Your task to perform on an android device: Go to Maps Image 0: 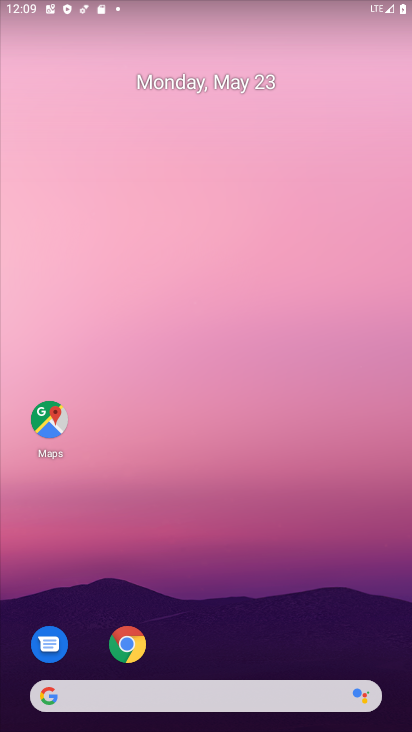
Step 0: drag from (361, 630) to (297, 112)
Your task to perform on an android device: Go to Maps Image 1: 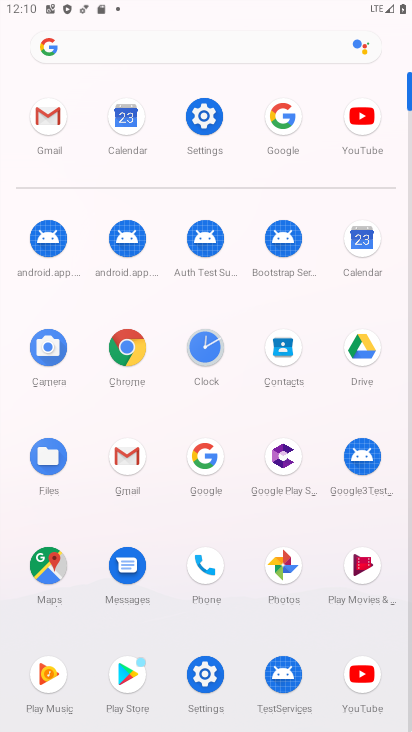
Step 1: click (54, 565)
Your task to perform on an android device: Go to Maps Image 2: 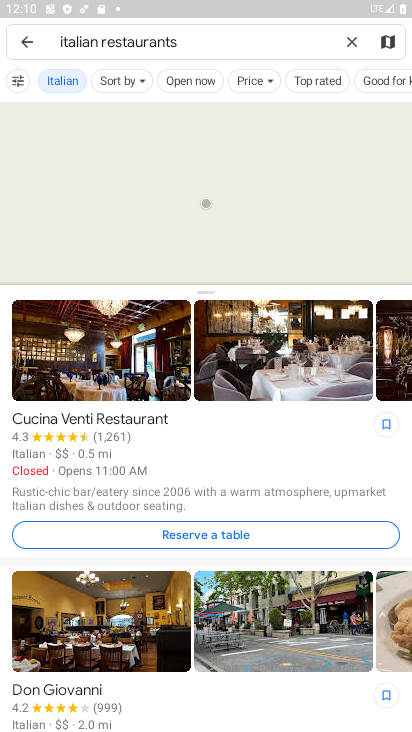
Step 2: click (353, 36)
Your task to perform on an android device: Go to Maps Image 3: 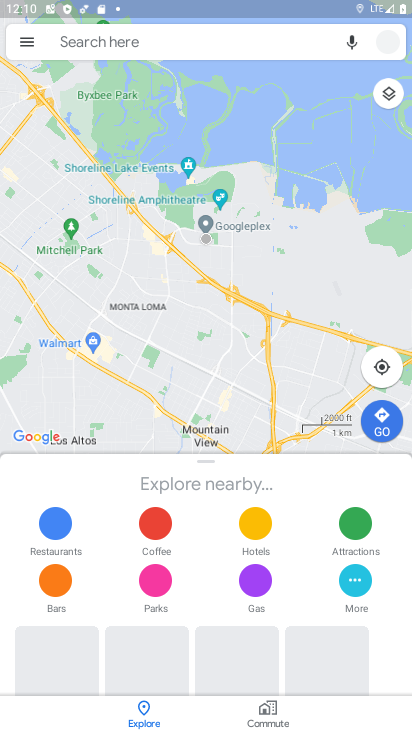
Step 3: task complete